Your task to perform on an android device: Open Google Chrome and open the bookmarks view Image 0: 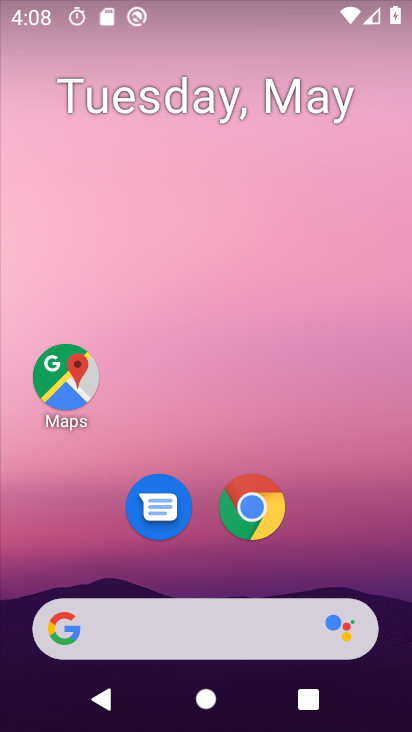
Step 0: click (246, 497)
Your task to perform on an android device: Open Google Chrome and open the bookmarks view Image 1: 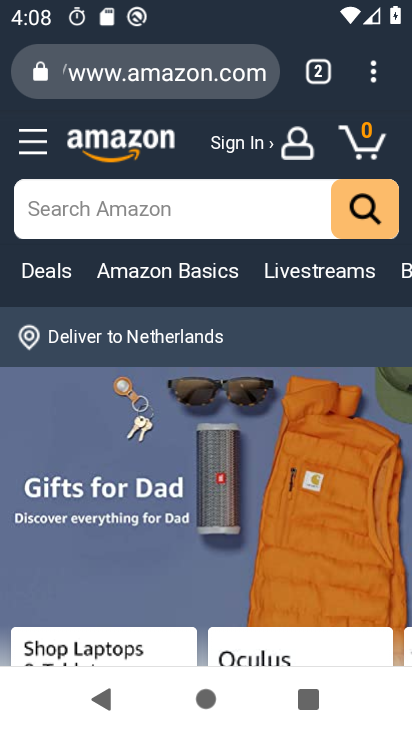
Step 1: click (355, 57)
Your task to perform on an android device: Open Google Chrome and open the bookmarks view Image 2: 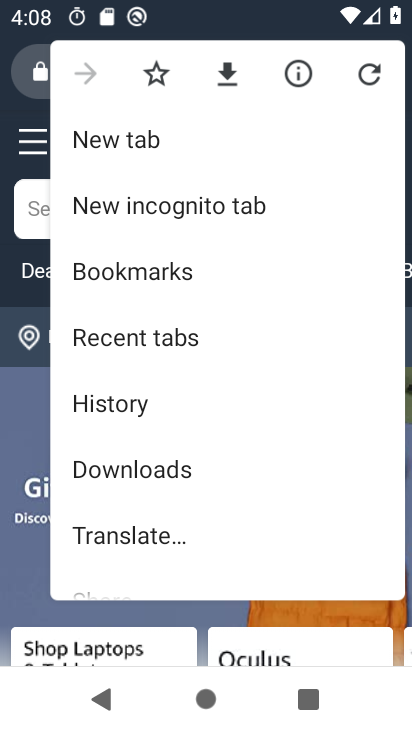
Step 2: click (212, 263)
Your task to perform on an android device: Open Google Chrome and open the bookmarks view Image 3: 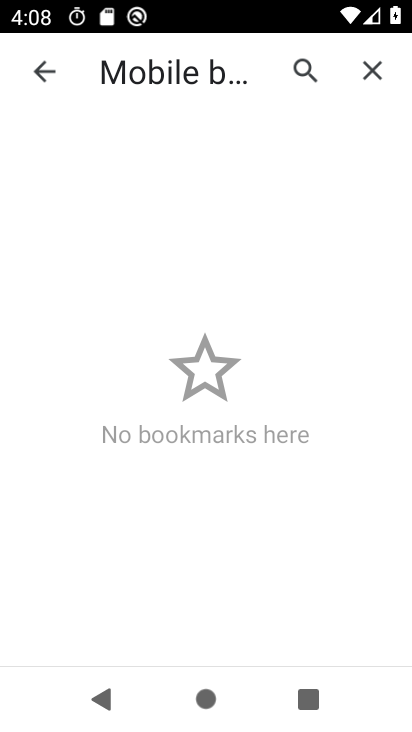
Step 3: task complete